Your task to perform on an android device: Open notification settings Image 0: 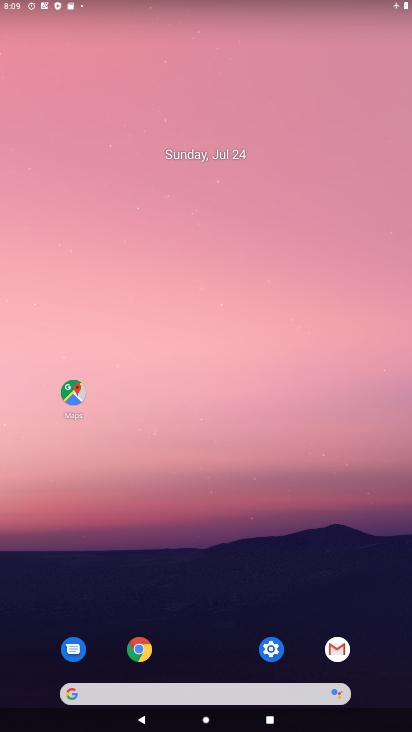
Step 0: click (281, 654)
Your task to perform on an android device: Open notification settings Image 1: 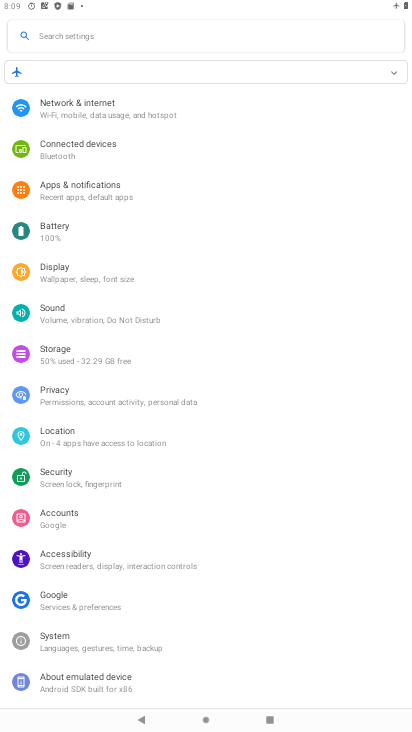
Step 1: click (113, 36)
Your task to perform on an android device: Open notification settings Image 2: 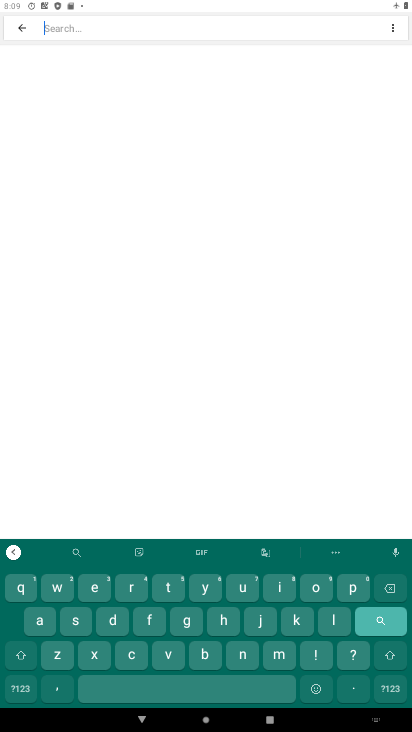
Step 2: click (246, 664)
Your task to perform on an android device: Open notification settings Image 3: 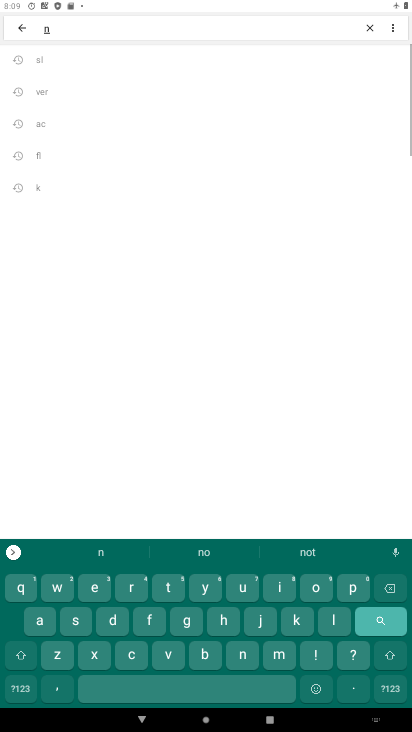
Step 3: click (322, 587)
Your task to perform on an android device: Open notification settings Image 4: 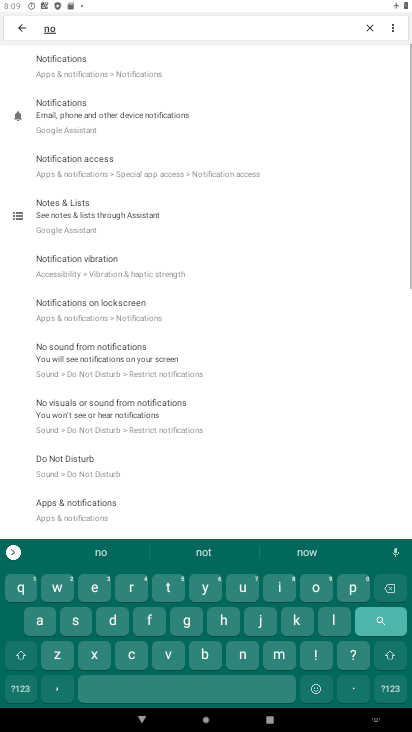
Step 4: click (103, 72)
Your task to perform on an android device: Open notification settings Image 5: 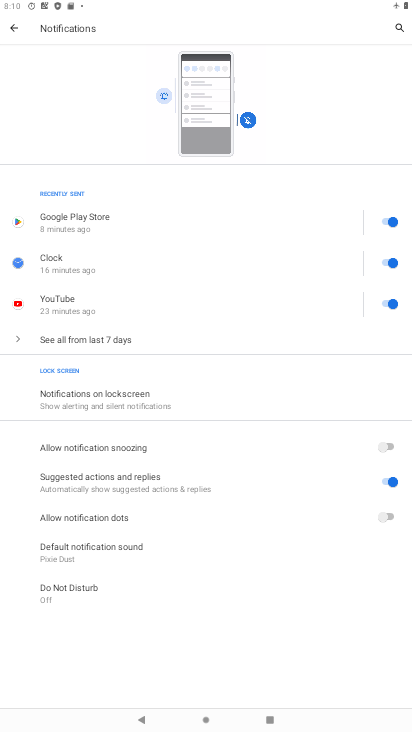
Step 5: task complete